Your task to perform on an android device: Clear the cart on ebay. Image 0: 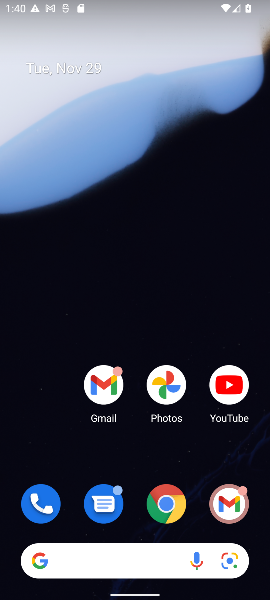
Step 0: click (165, 505)
Your task to perform on an android device: Clear the cart on ebay. Image 1: 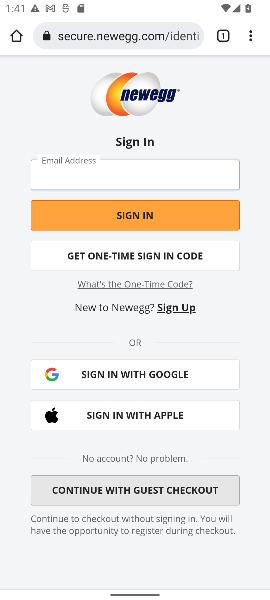
Step 1: click (108, 34)
Your task to perform on an android device: Clear the cart on ebay. Image 2: 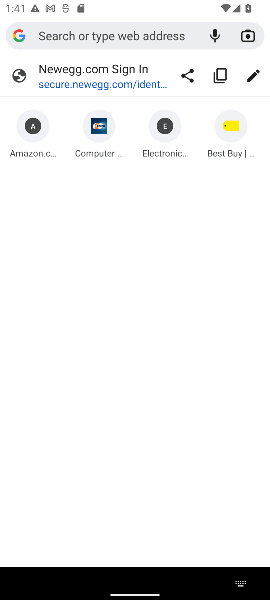
Step 2: type "ebay.com"
Your task to perform on an android device: Clear the cart on ebay. Image 3: 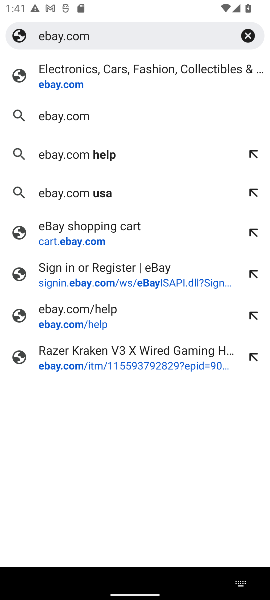
Step 3: click (53, 88)
Your task to perform on an android device: Clear the cart on ebay. Image 4: 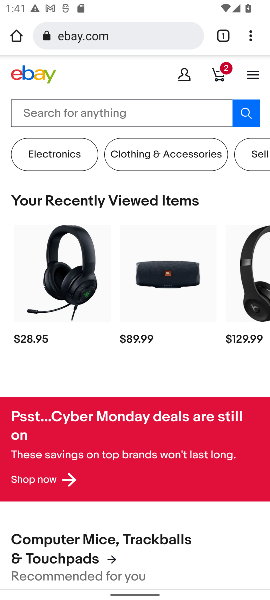
Step 4: click (220, 70)
Your task to perform on an android device: Clear the cart on ebay. Image 5: 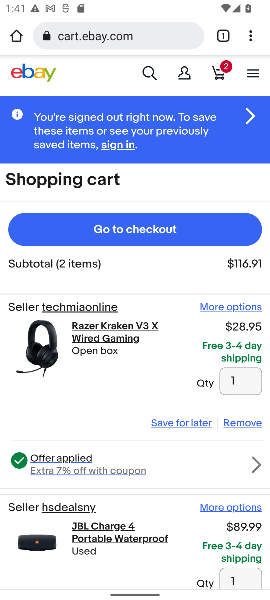
Step 5: click (236, 425)
Your task to perform on an android device: Clear the cart on ebay. Image 6: 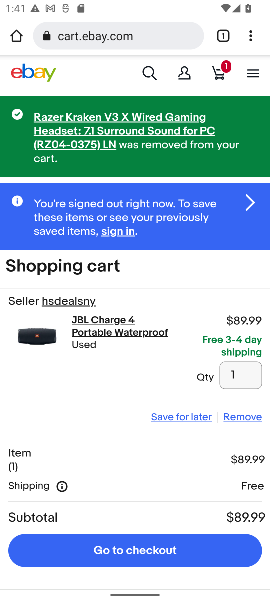
Step 6: click (238, 416)
Your task to perform on an android device: Clear the cart on ebay. Image 7: 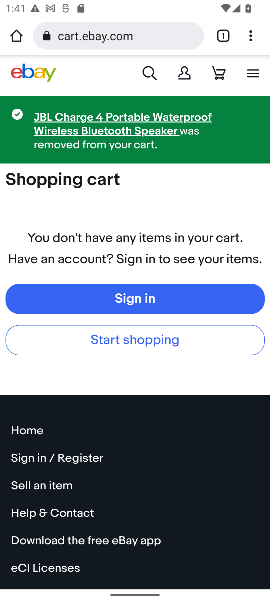
Step 7: task complete